Your task to perform on an android device: turn on data saver in the chrome app Image 0: 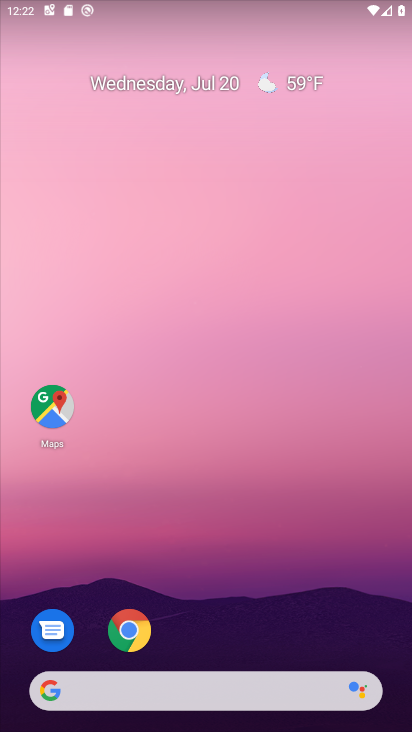
Step 0: click (128, 628)
Your task to perform on an android device: turn on data saver in the chrome app Image 1: 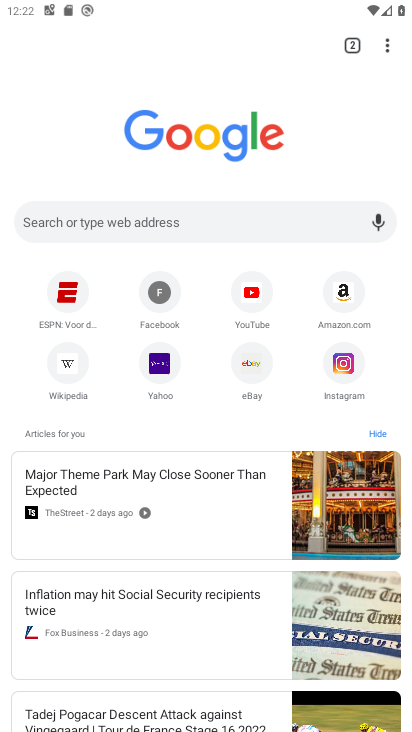
Step 1: click (385, 48)
Your task to perform on an android device: turn on data saver in the chrome app Image 2: 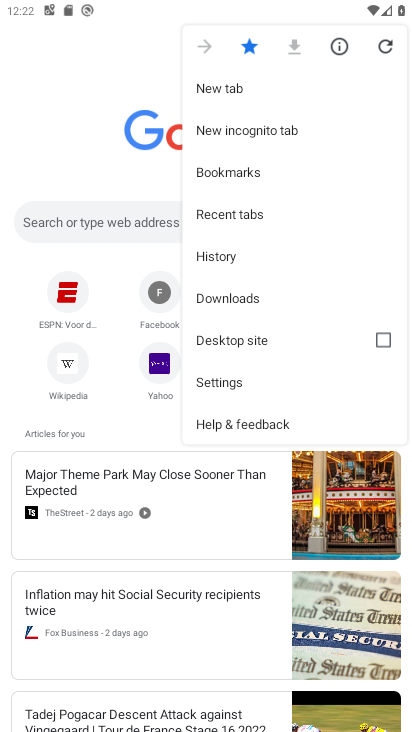
Step 2: click (213, 382)
Your task to perform on an android device: turn on data saver in the chrome app Image 3: 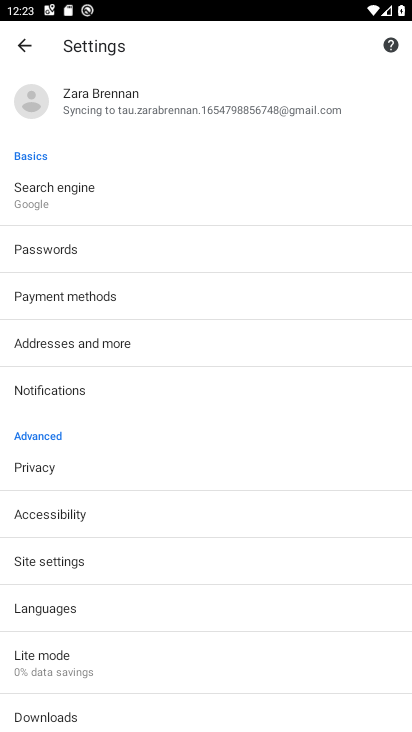
Step 3: click (57, 655)
Your task to perform on an android device: turn on data saver in the chrome app Image 4: 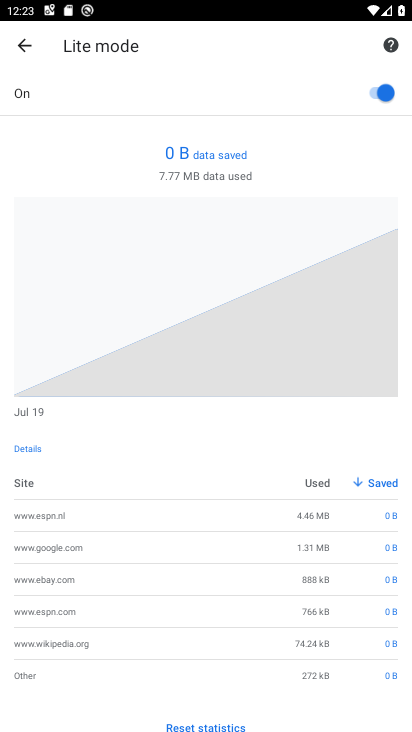
Step 4: task complete